Your task to perform on an android device: Open calendar and show me the third week of next month Image 0: 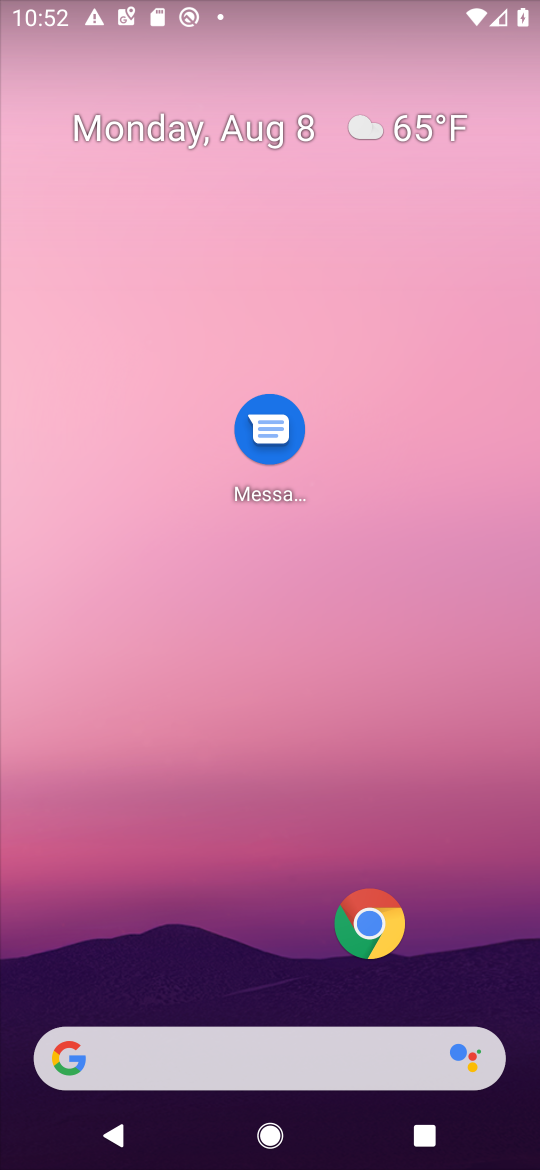
Step 0: drag from (81, 1041) to (272, 343)
Your task to perform on an android device: Open calendar and show me the third week of next month Image 1: 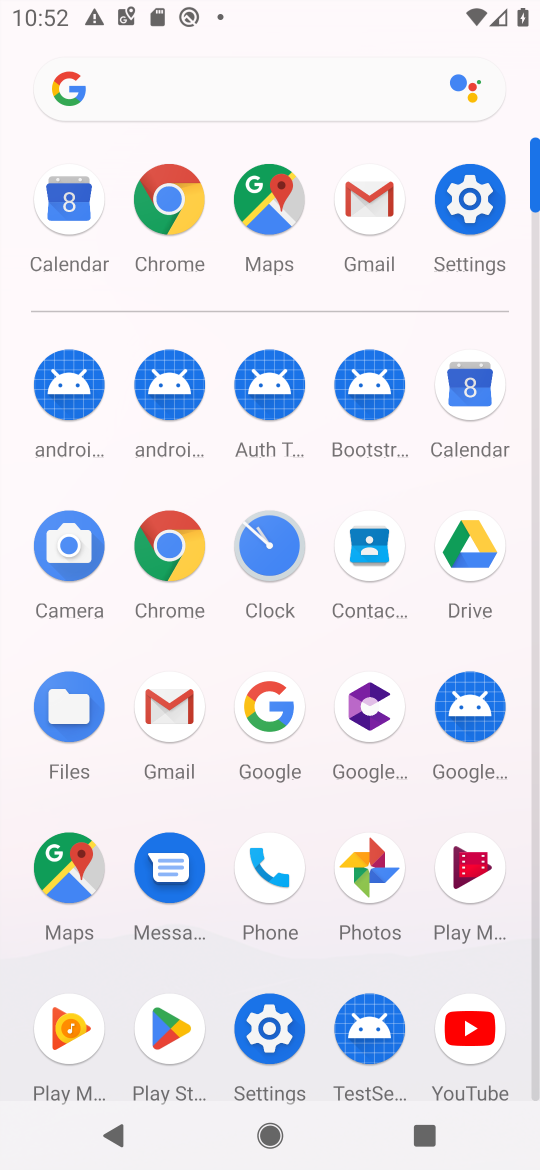
Step 1: click (478, 417)
Your task to perform on an android device: Open calendar and show me the third week of next month Image 2: 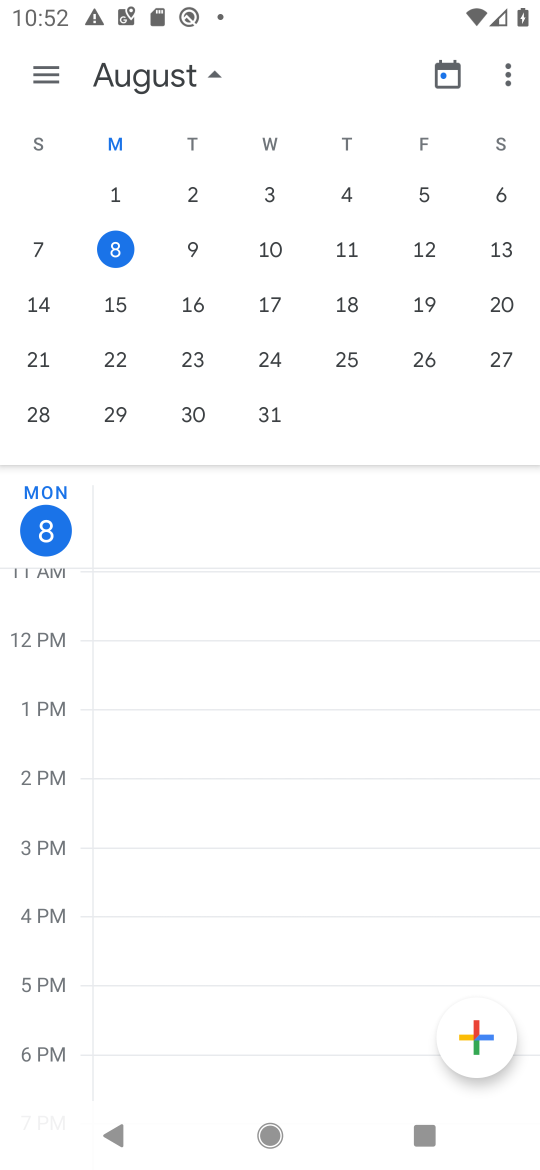
Step 2: drag from (529, 259) to (91, 295)
Your task to perform on an android device: Open calendar and show me the third week of next month Image 3: 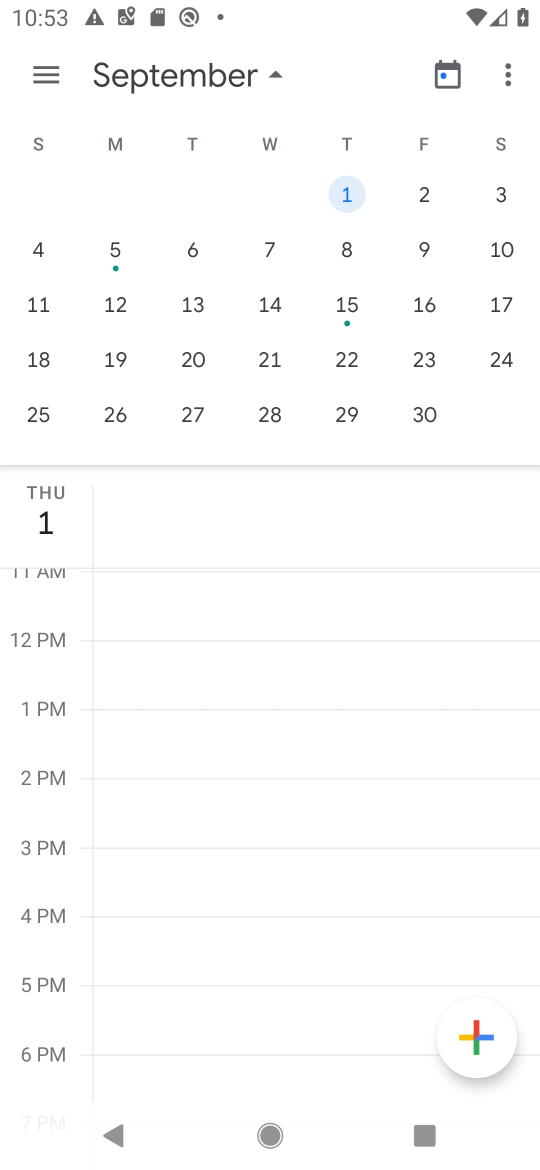
Step 3: click (124, 312)
Your task to perform on an android device: Open calendar and show me the third week of next month Image 4: 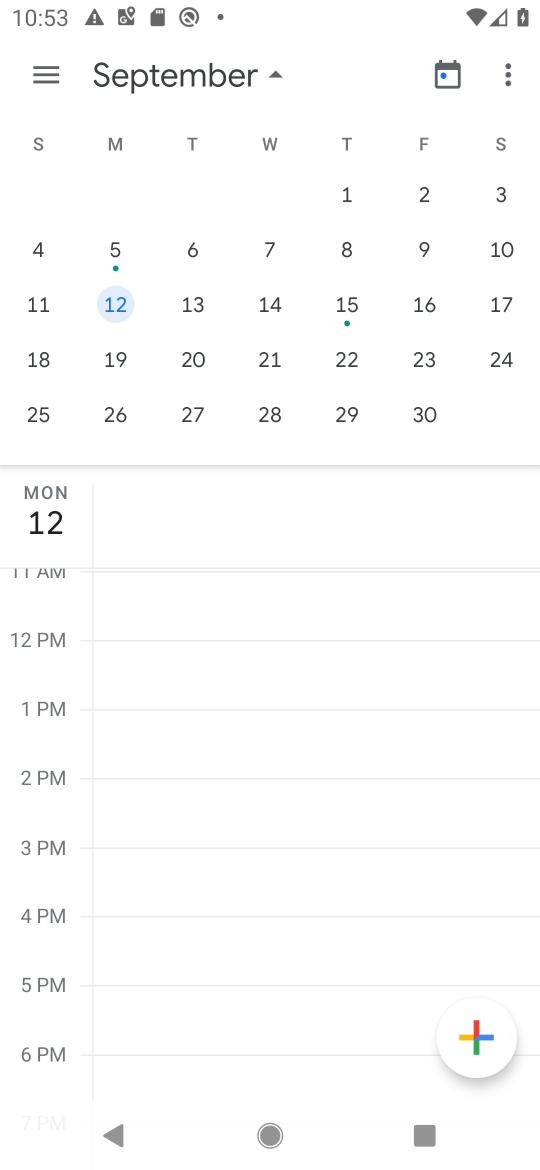
Step 4: task complete